Your task to perform on an android device: toggle notification dots Image 0: 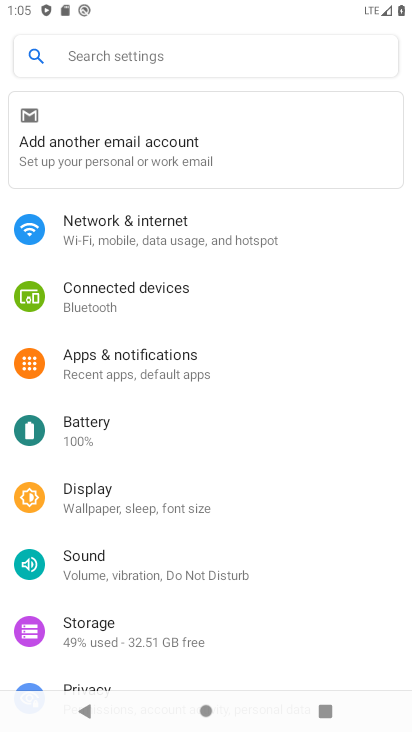
Step 0: press home button
Your task to perform on an android device: toggle notification dots Image 1: 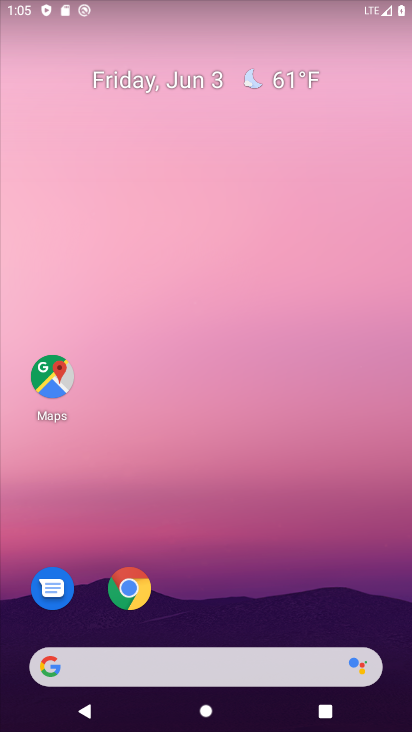
Step 1: drag from (66, 549) to (344, 59)
Your task to perform on an android device: toggle notification dots Image 2: 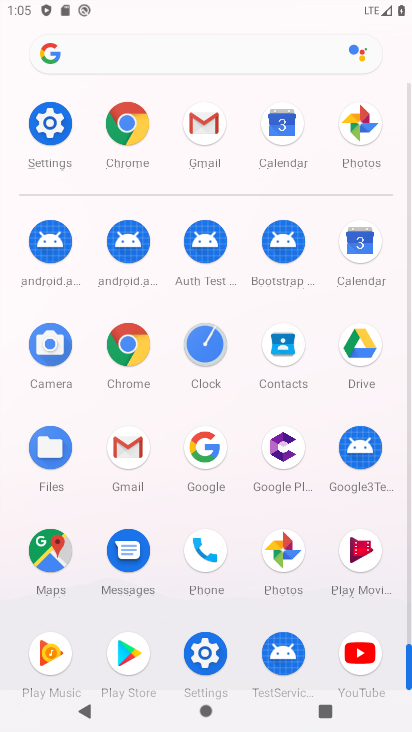
Step 2: click (38, 135)
Your task to perform on an android device: toggle notification dots Image 3: 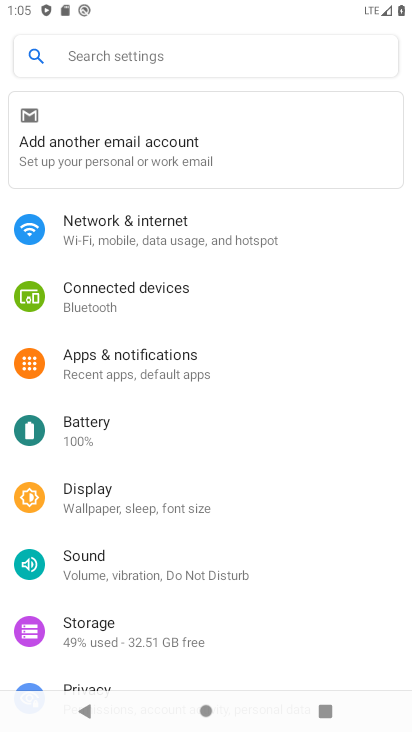
Step 3: click (119, 366)
Your task to perform on an android device: toggle notification dots Image 4: 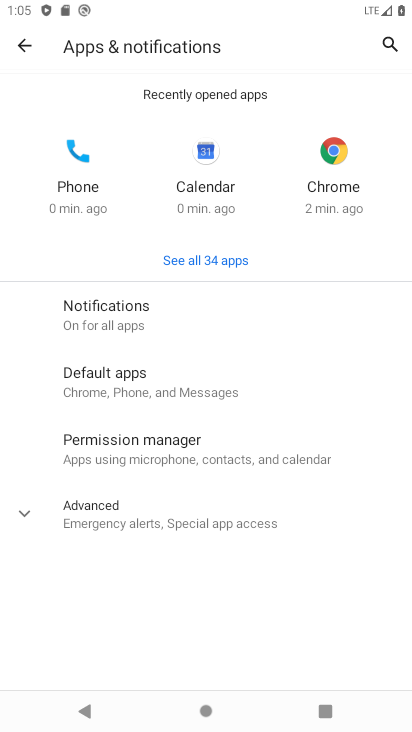
Step 4: click (126, 315)
Your task to perform on an android device: toggle notification dots Image 5: 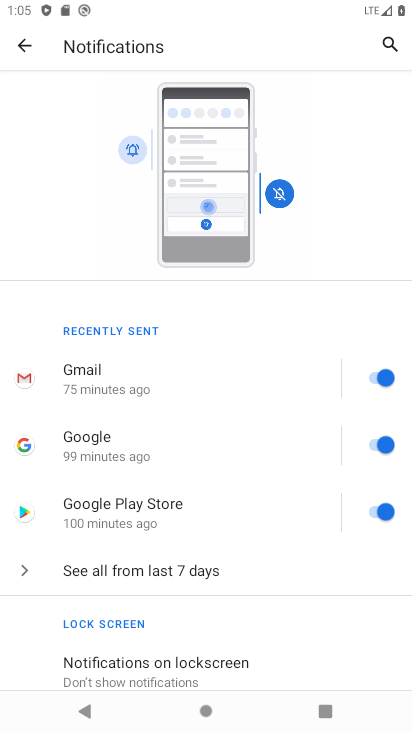
Step 5: drag from (3, 637) to (243, 100)
Your task to perform on an android device: toggle notification dots Image 6: 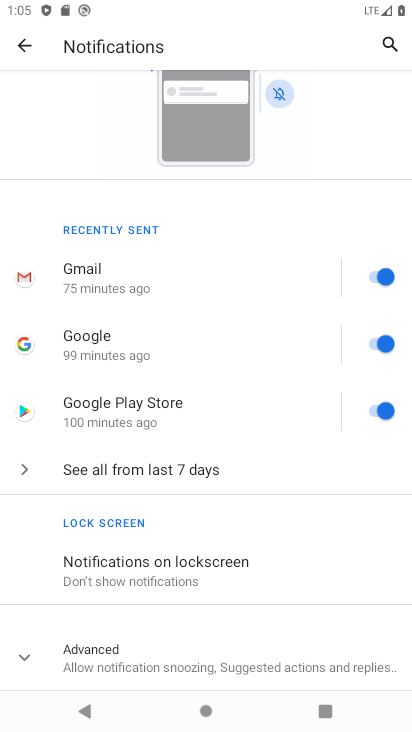
Step 6: click (194, 664)
Your task to perform on an android device: toggle notification dots Image 7: 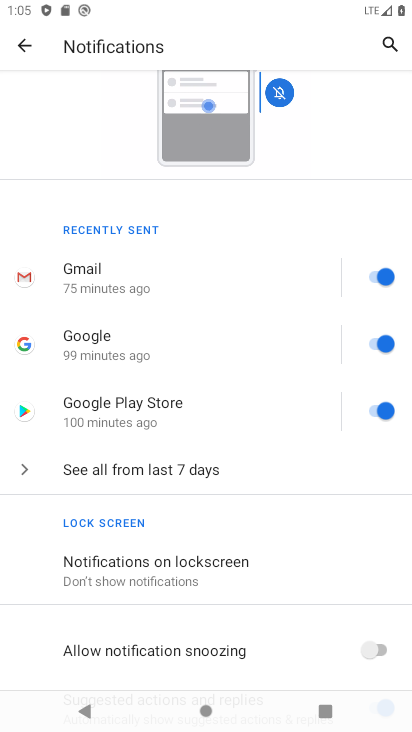
Step 7: drag from (19, 541) to (168, 254)
Your task to perform on an android device: toggle notification dots Image 8: 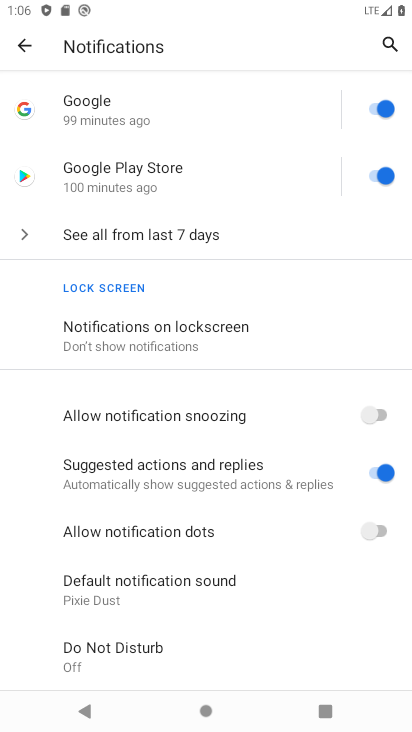
Step 8: click (382, 532)
Your task to perform on an android device: toggle notification dots Image 9: 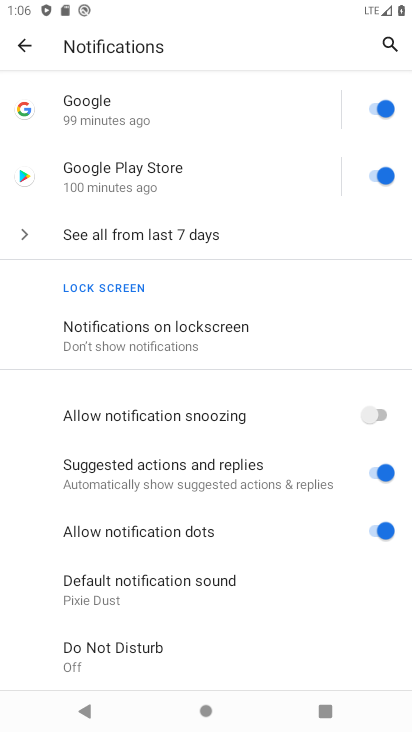
Step 9: task complete